Your task to perform on an android device: Add apple airpods pro to the cart on costco.com, then select checkout. Image 0: 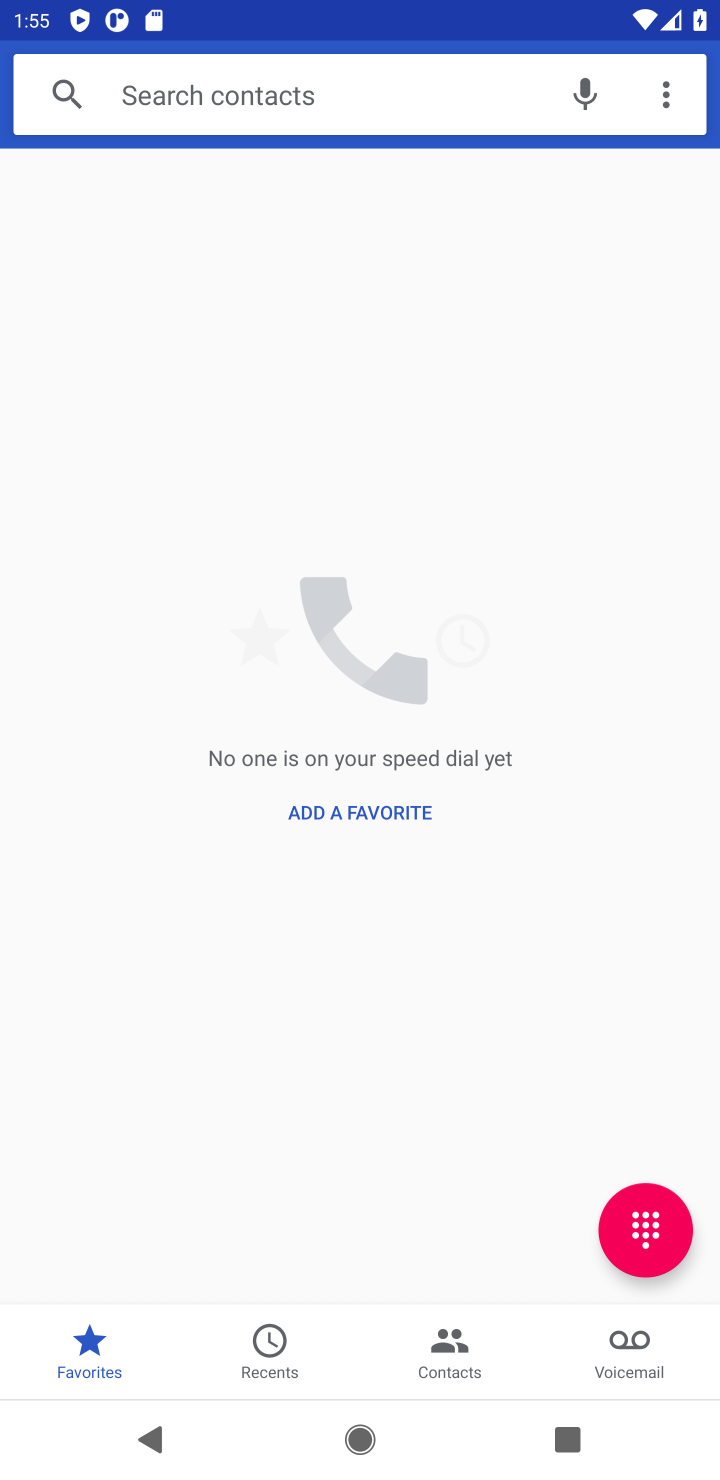
Step 0: press home button
Your task to perform on an android device: Add apple airpods pro to the cart on costco.com, then select checkout. Image 1: 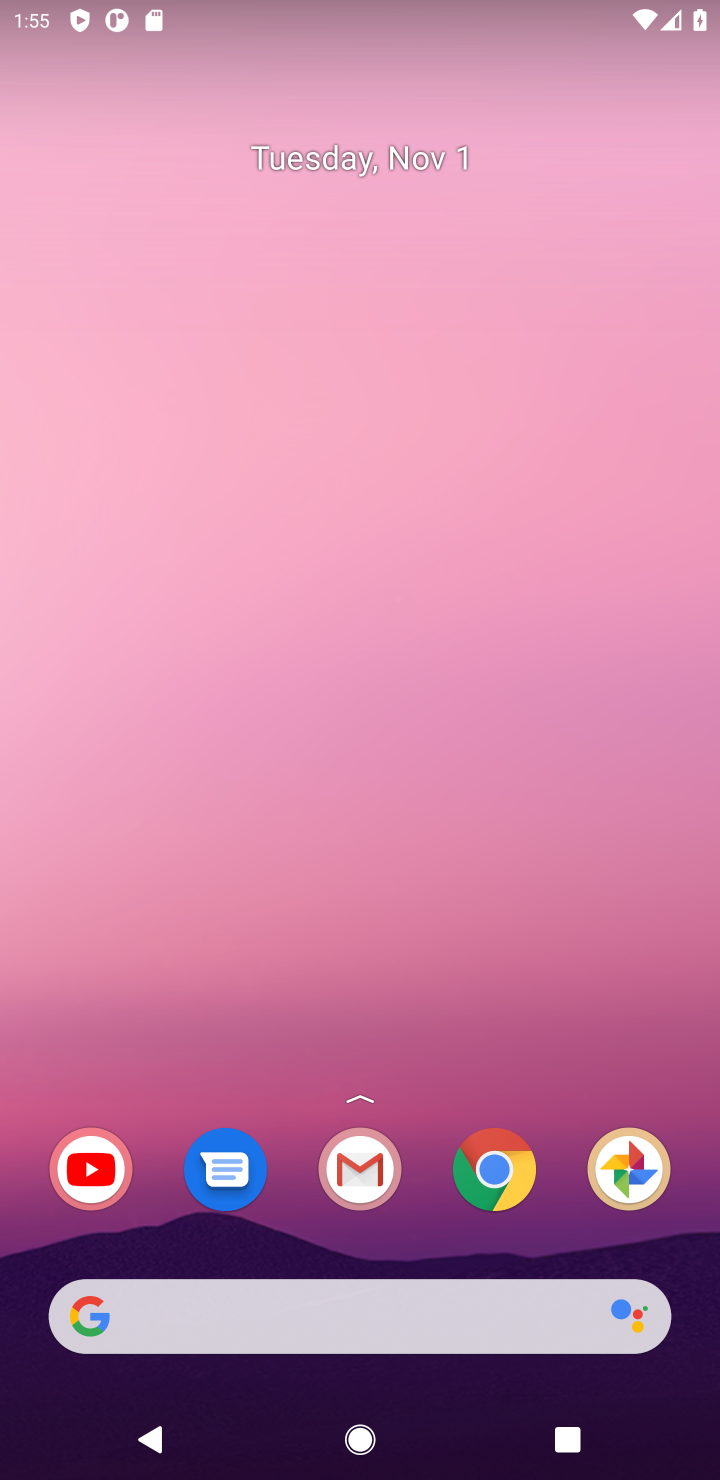
Step 1: click (487, 1209)
Your task to perform on an android device: Add apple airpods pro to the cart on costco.com, then select checkout. Image 2: 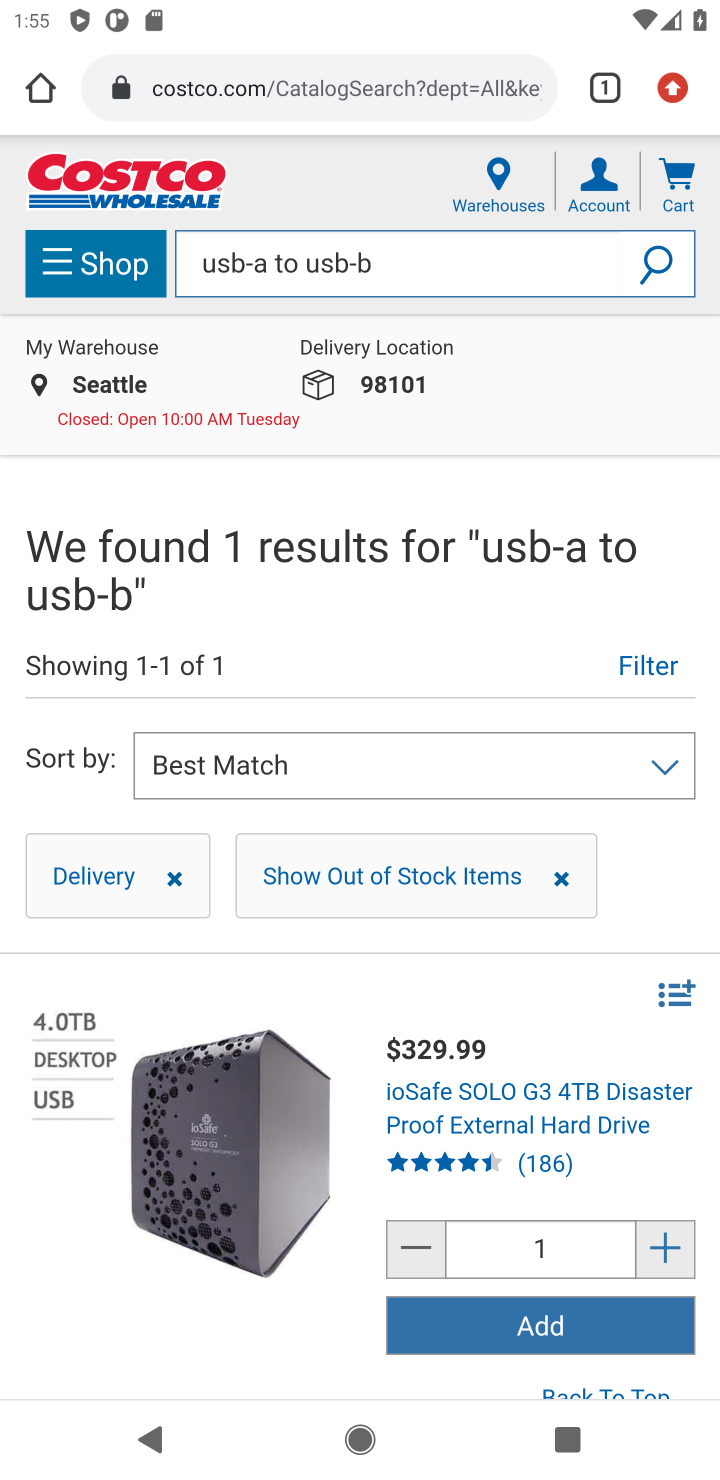
Step 2: click (230, 249)
Your task to perform on an android device: Add apple airpods pro to the cart on costco.com, then select checkout. Image 3: 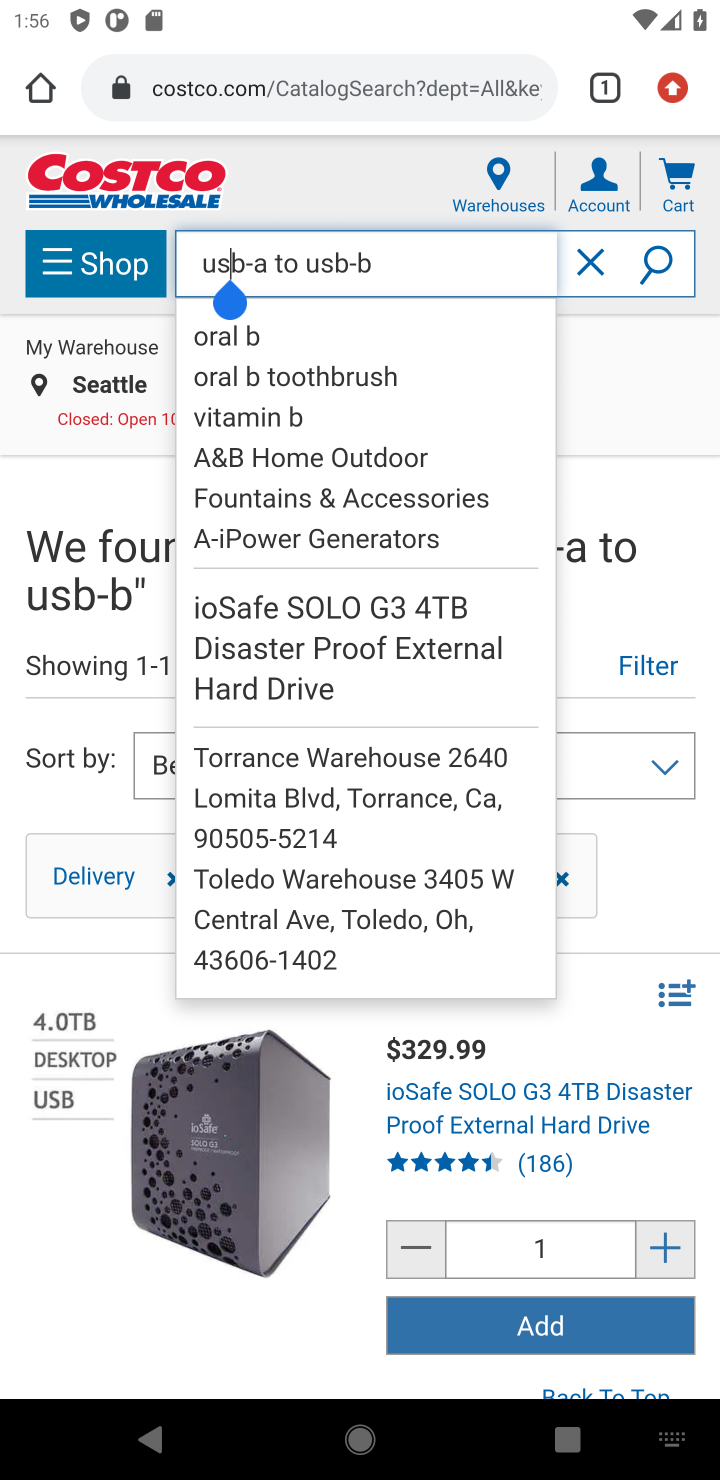
Step 3: click (584, 268)
Your task to perform on an android device: Add apple airpods pro to the cart on costco.com, then select checkout. Image 4: 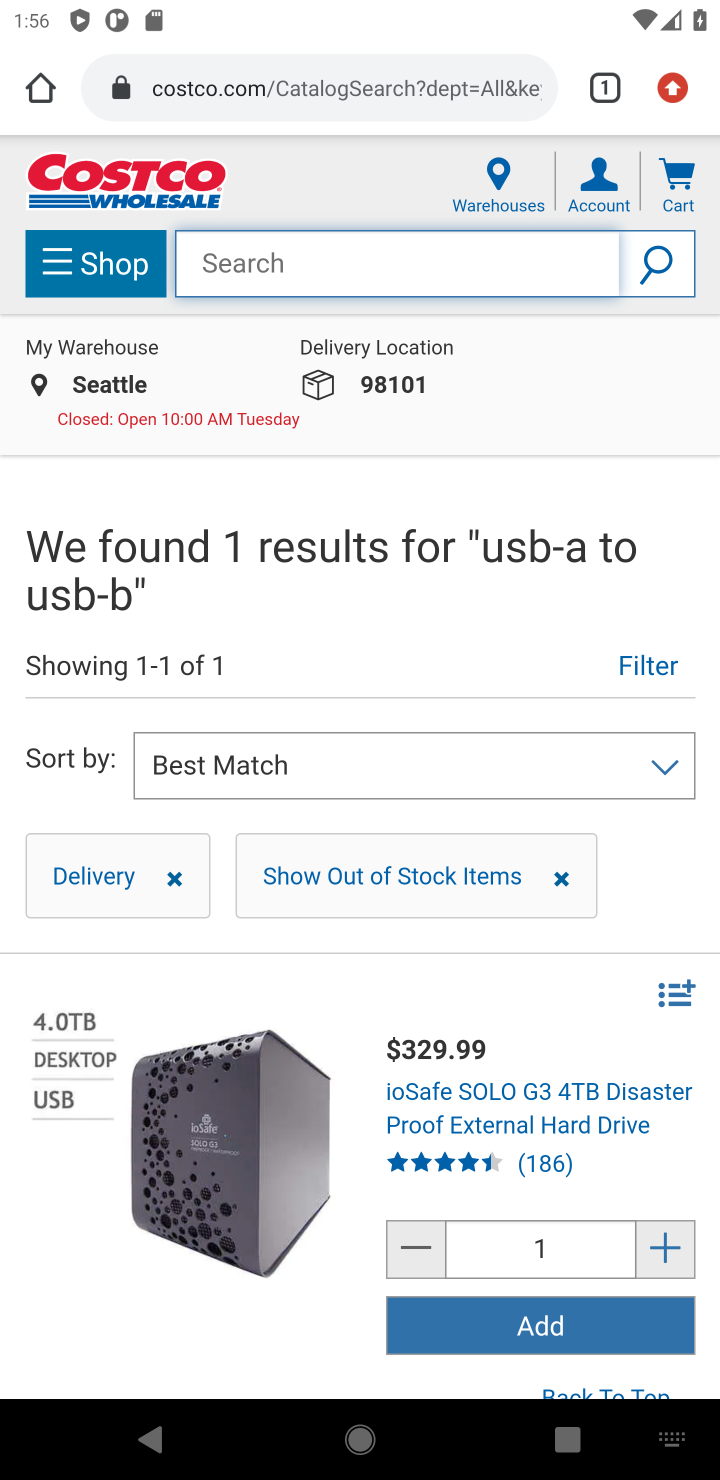
Step 4: type "apple airpods pro"
Your task to perform on an android device: Add apple airpods pro to the cart on costco.com, then select checkout. Image 5: 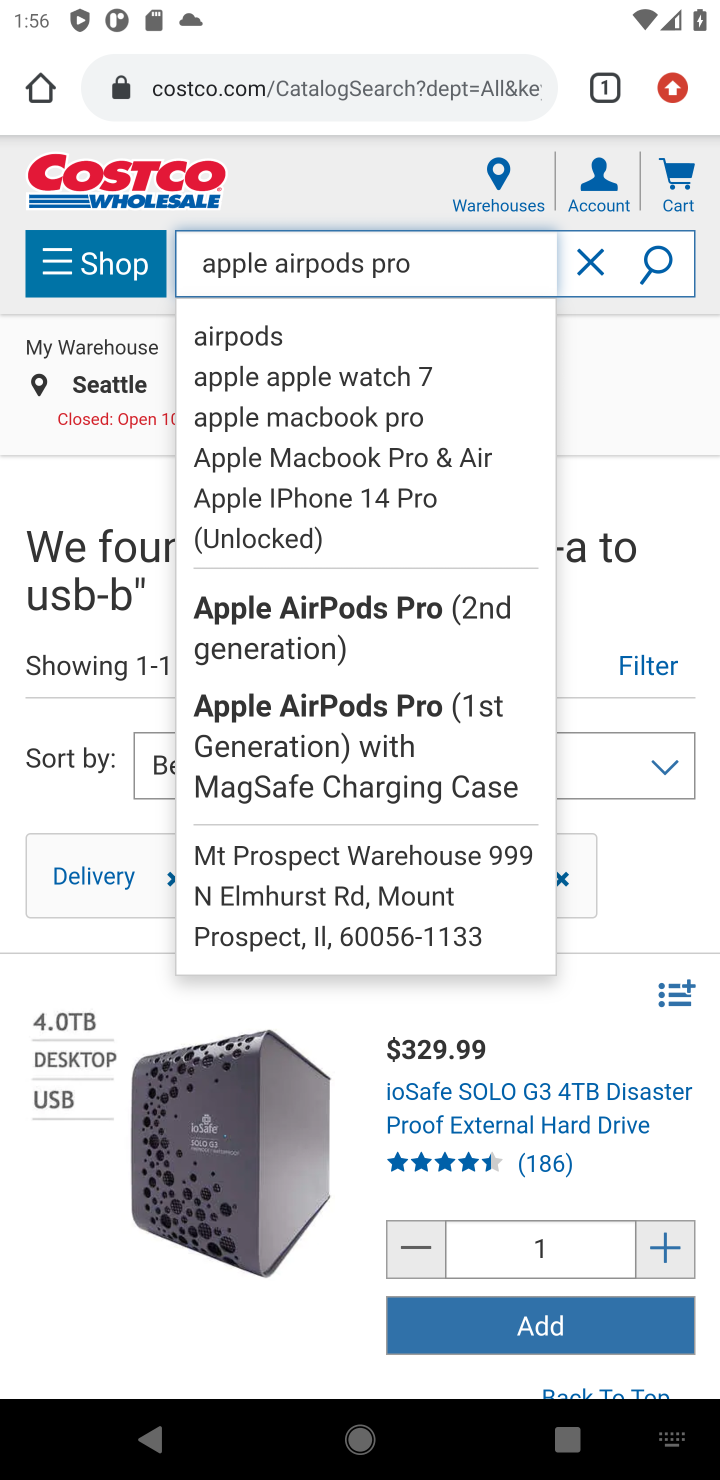
Step 5: click (661, 254)
Your task to perform on an android device: Add apple airpods pro to the cart on costco.com, then select checkout. Image 6: 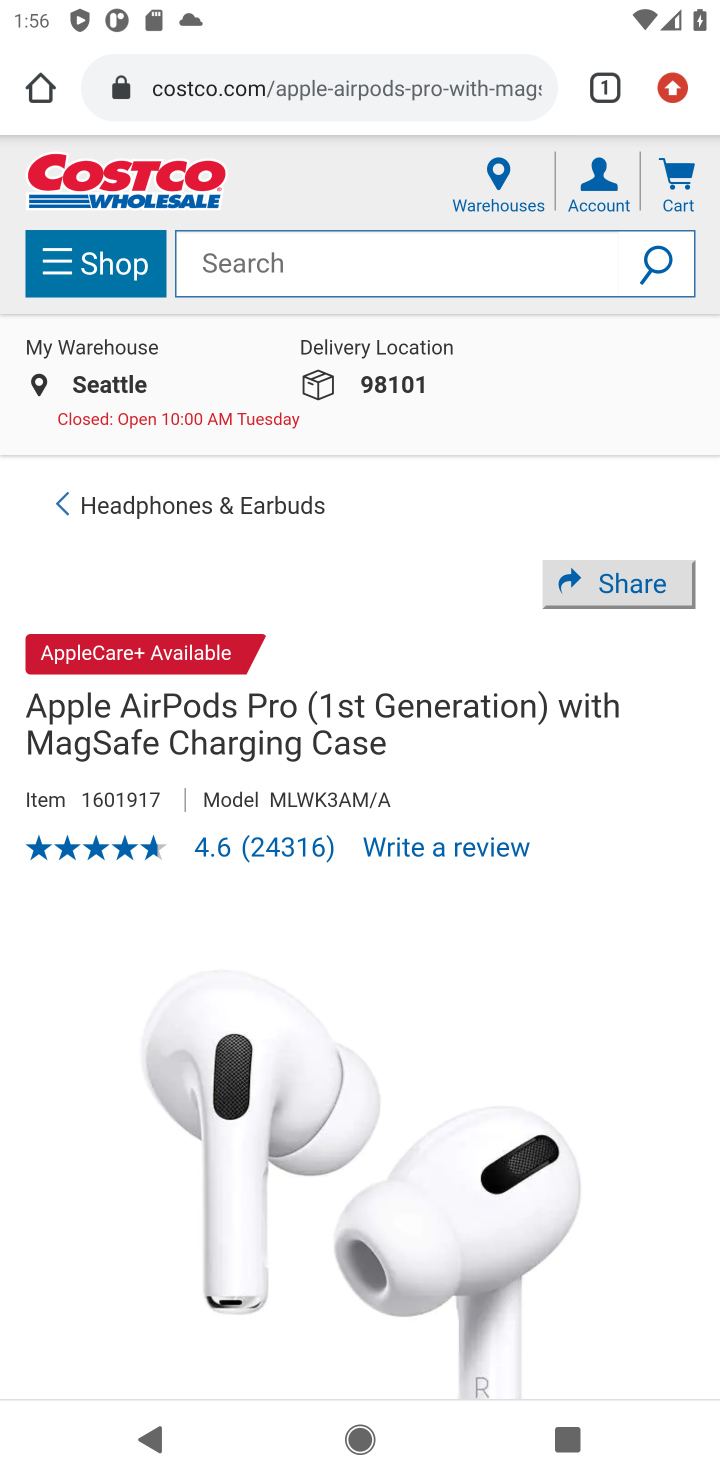
Step 6: drag from (174, 1171) to (232, 220)
Your task to perform on an android device: Add apple airpods pro to the cart on costco.com, then select checkout. Image 7: 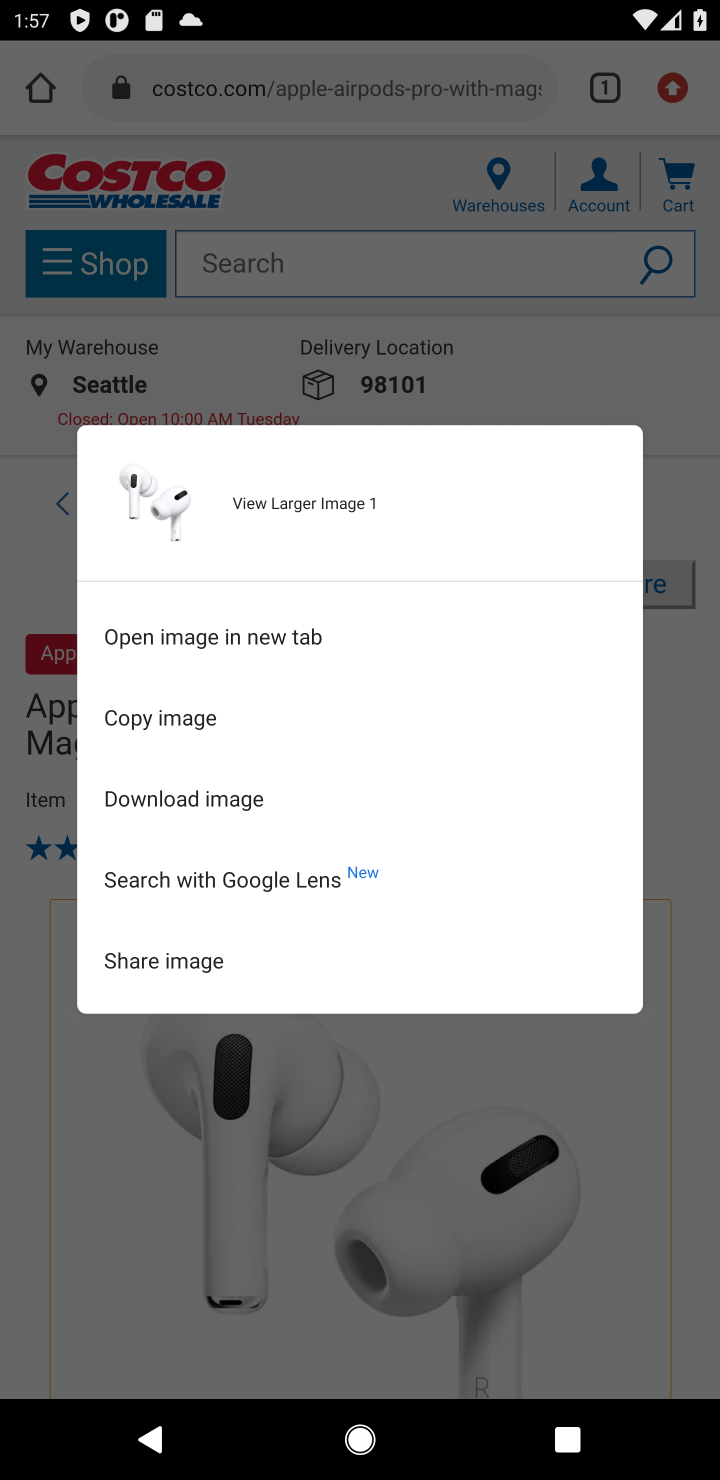
Step 7: click (136, 1289)
Your task to perform on an android device: Add apple airpods pro to the cart on costco.com, then select checkout. Image 8: 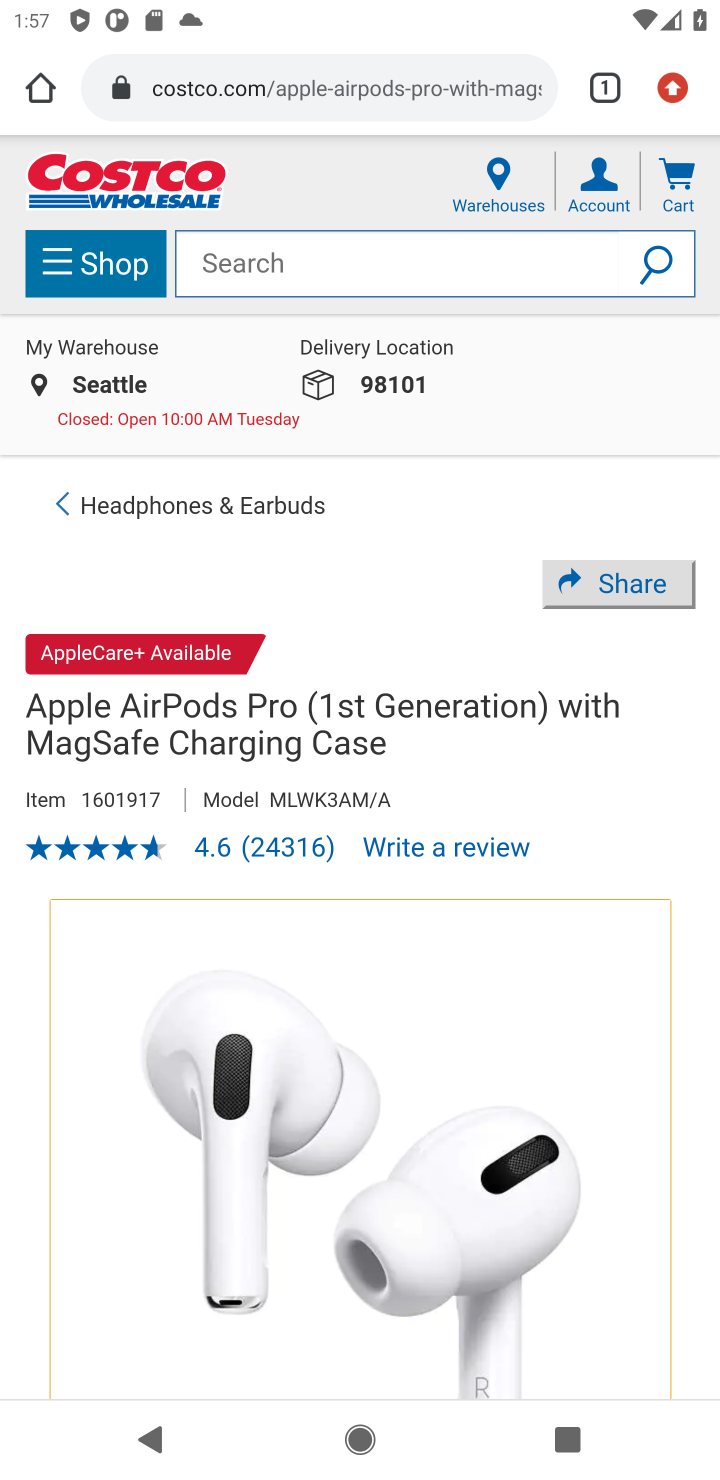
Step 8: drag from (229, 1163) to (287, 399)
Your task to perform on an android device: Add apple airpods pro to the cart on costco.com, then select checkout. Image 9: 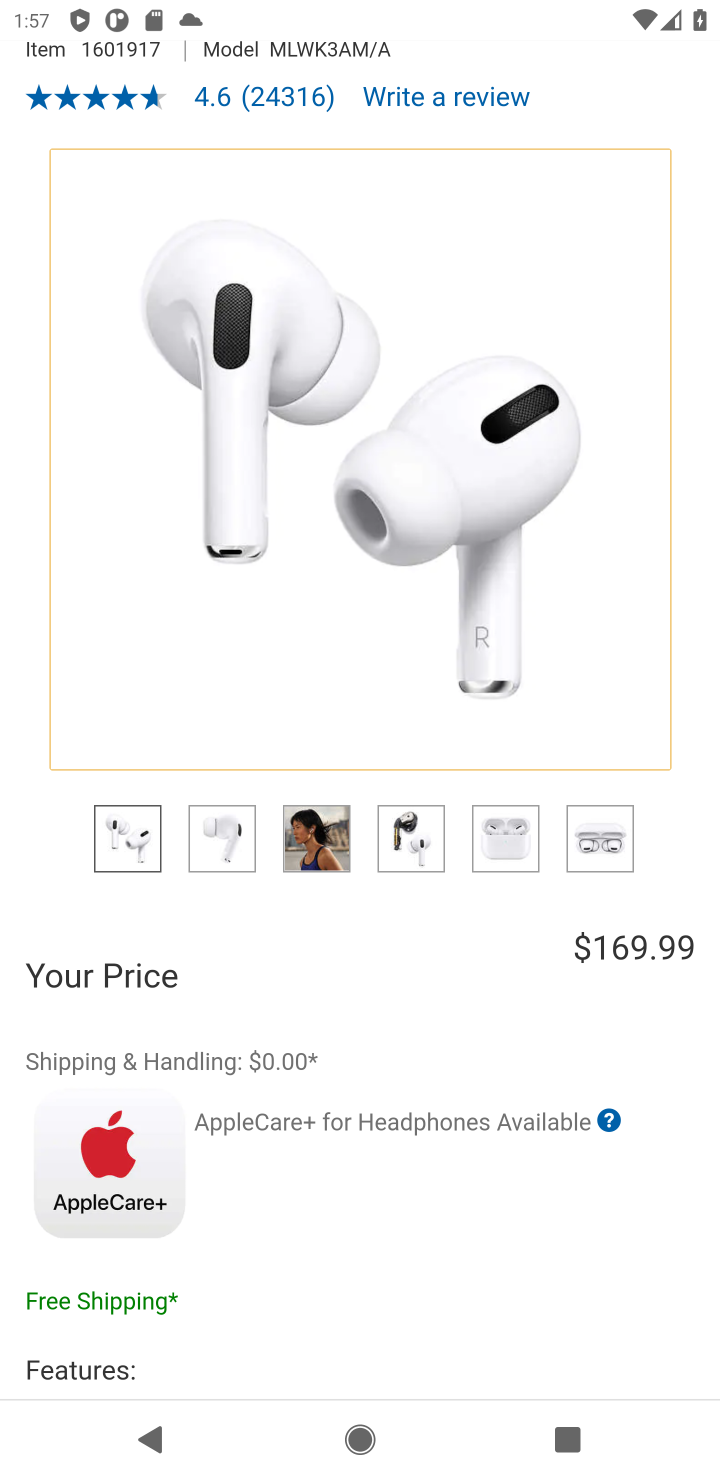
Step 9: drag from (323, 1163) to (352, 379)
Your task to perform on an android device: Add apple airpods pro to the cart on costco.com, then select checkout. Image 10: 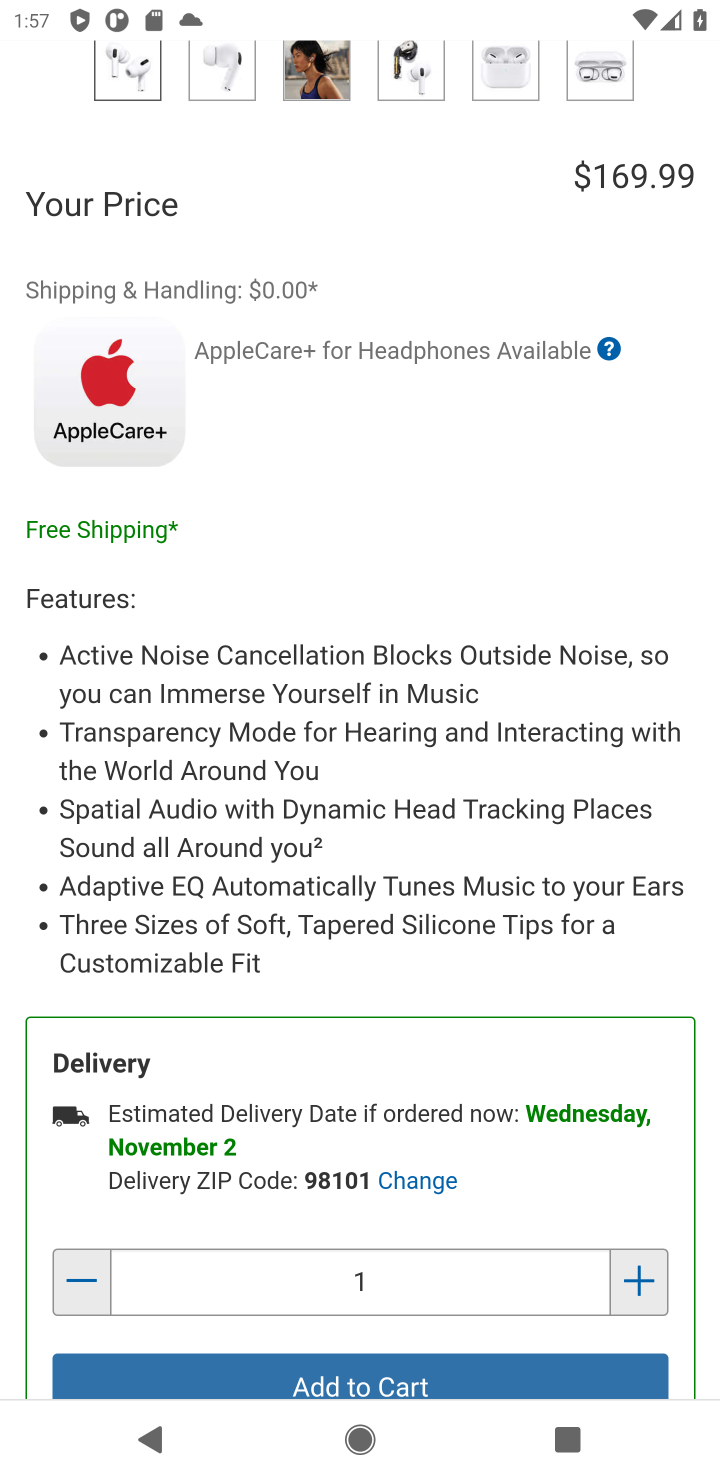
Step 10: click (305, 1373)
Your task to perform on an android device: Add apple airpods pro to the cart on costco.com, then select checkout. Image 11: 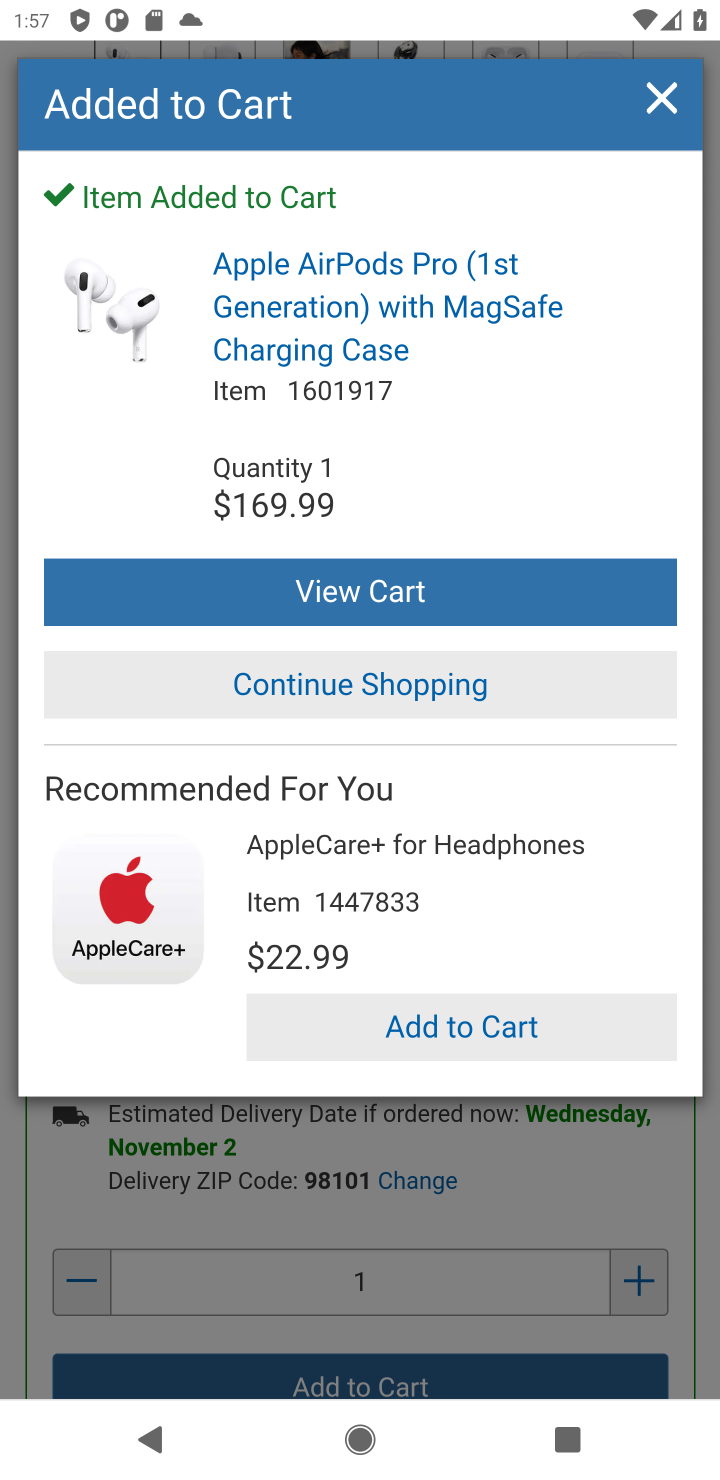
Step 11: click (334, 598)
Your task to perform on an android device: Add apple airpods pro to the cart on costco.com, then select checkout. Image 12: 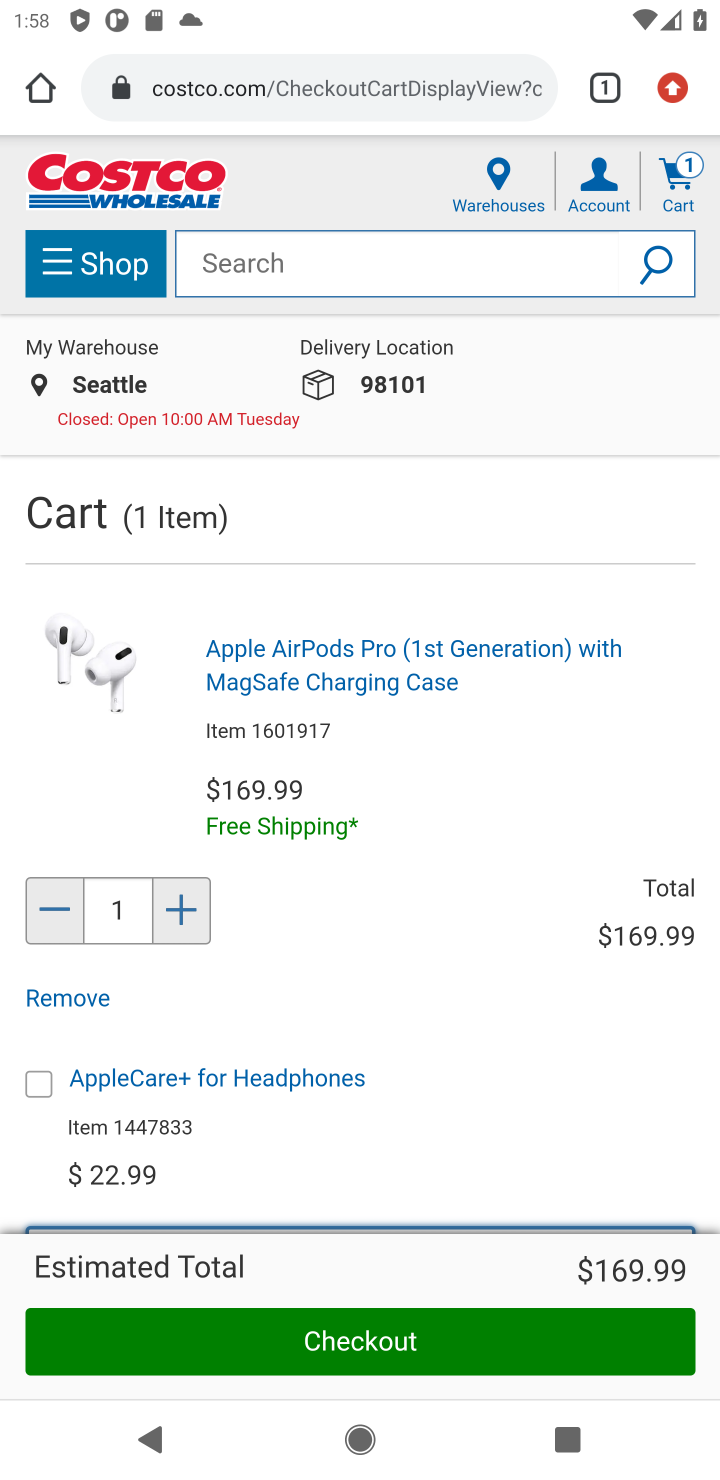
Step 12: click (309, 1349)
Your task to perform on an android device: Add apple airpods pro to the cart on costco.com, then select checkout. Image 13: 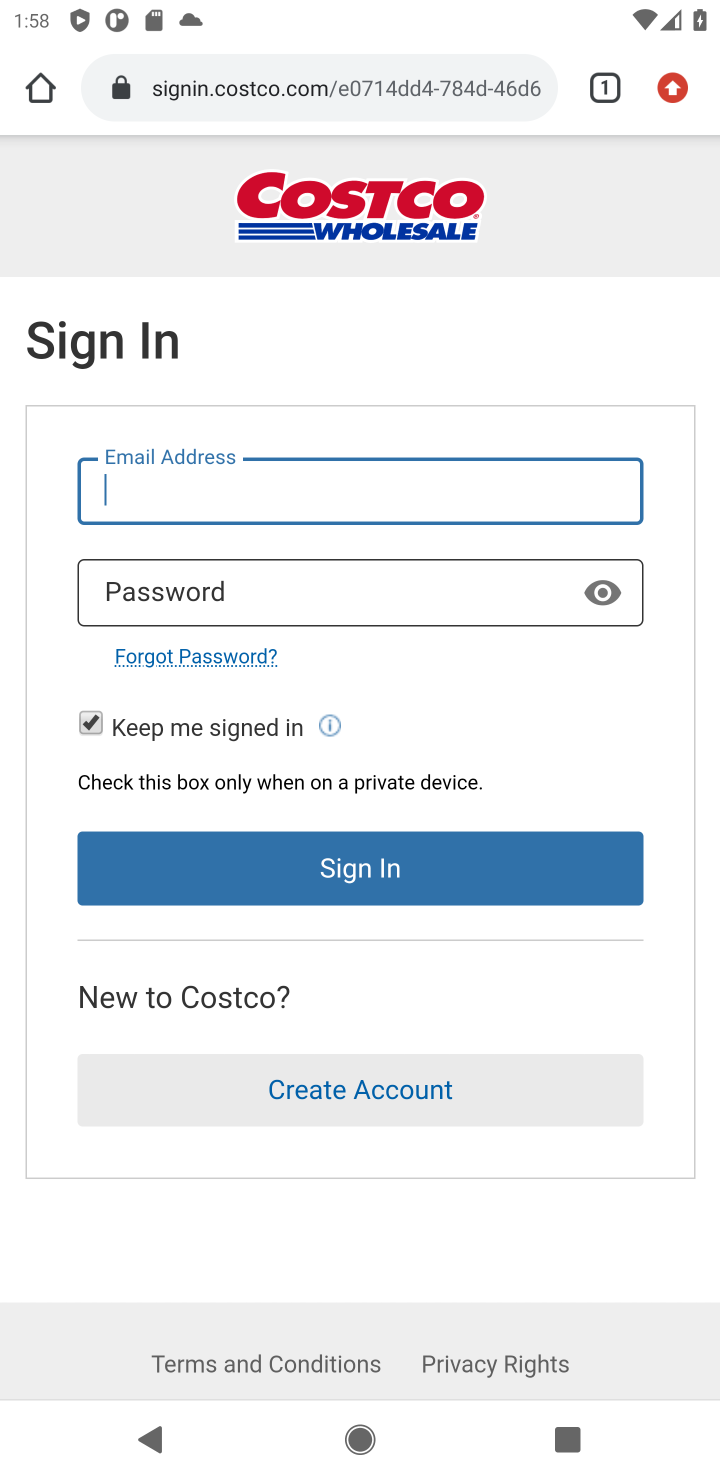
Step 13: task complete